Your task to perform on an android device: open wifi settings Image 0: 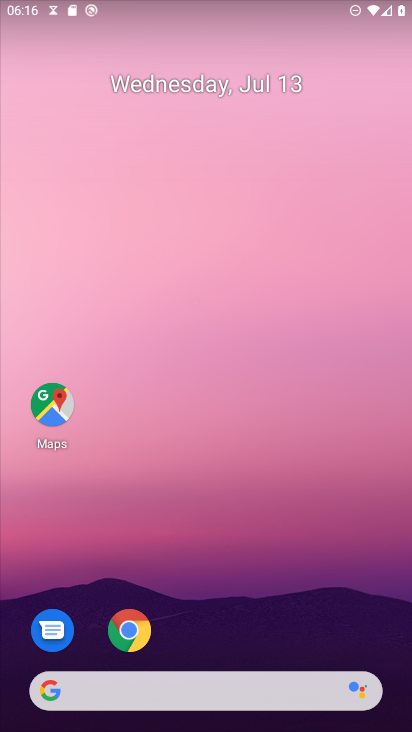
Step 0: drag from (91, 676) to (148, 56)
Your task to perform on an android device: open wifi settings Image 1: 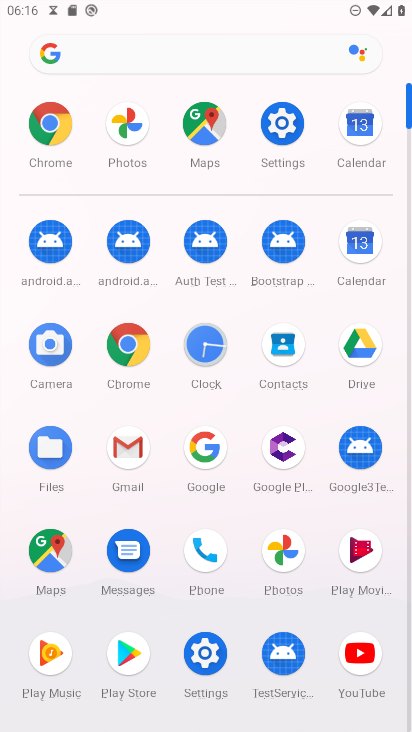
Step 1: click (291, 125)
Your task to perform on an android device: open wifi settings Image 2: 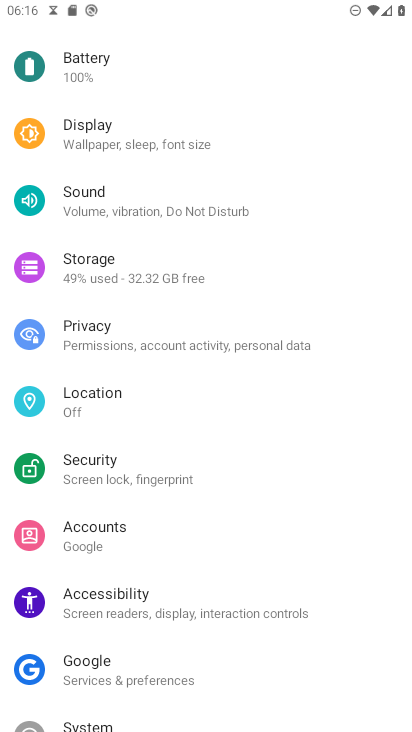
Step 2: drag from (145, 135) to (223, 660)
Your task to perform on an android device: open wifi settings Image 3: 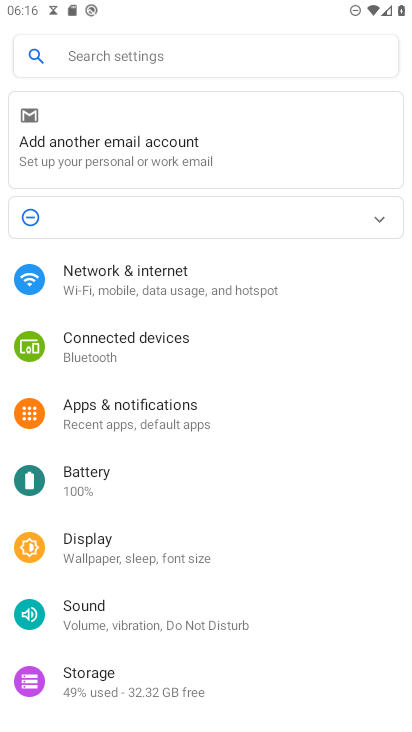
Step 3: click (149, 284)
Your task to perform on an android device: open wifi settings Image 4: 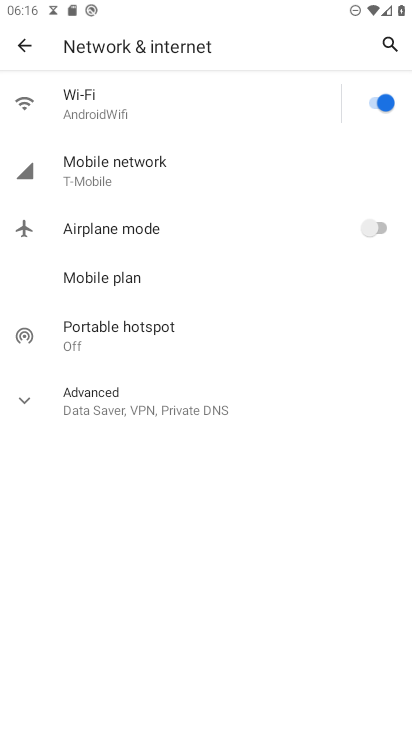
Step 4: click (116, 99)
Your task to perform on an android device: open wifi settings Image 5: 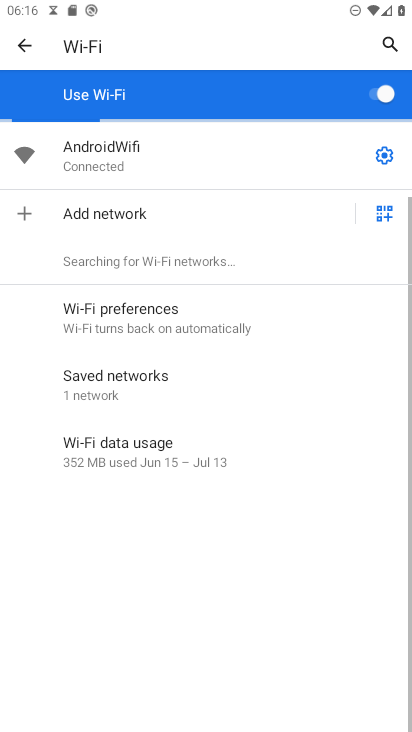
Step 5: task complete